Your task to perform on an android device: clear all cookies in the chrome app Image 0: 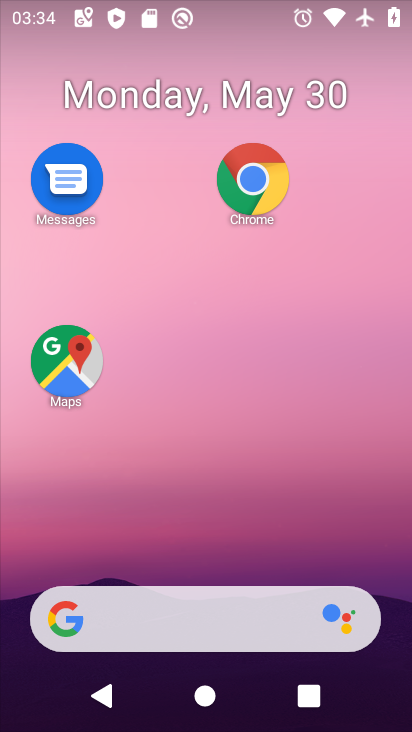
Step 0: click (240, 188)
Your task to perform on an android device: clear all cookies in the chrome app Image 1: 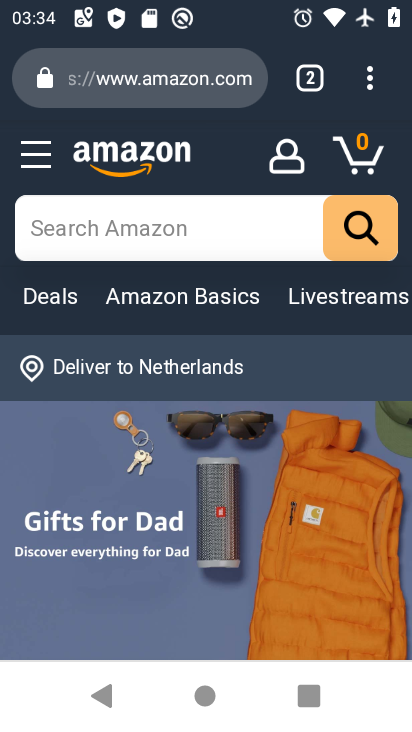
Step 1: click (367, 92)
Your task to perform on an android device: clear all cookies in the chrome app Image 2: 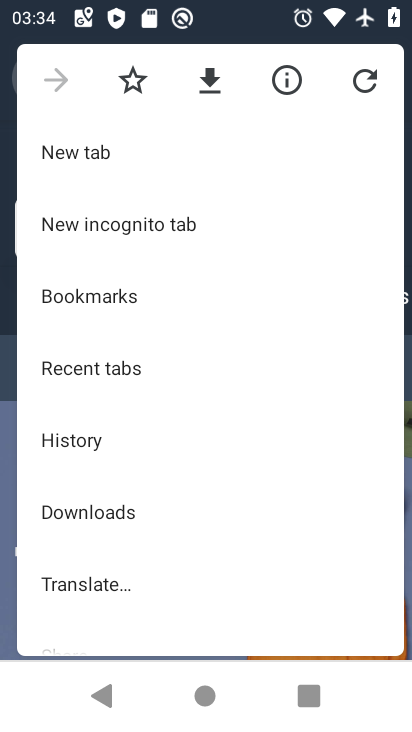
Step 2: click (78, 442)
Your task to perform on an android device: clear all cookies in the chrome app Image 3: 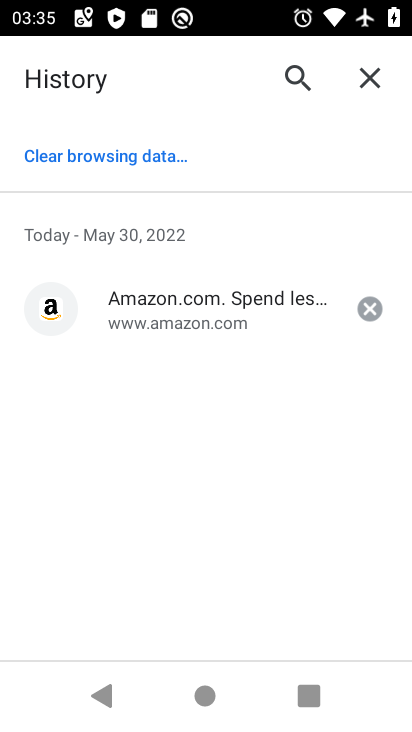
Step 3: click (118, 155)
Your task to perform on an android device: clear all cookies in the chrome app Image 4: 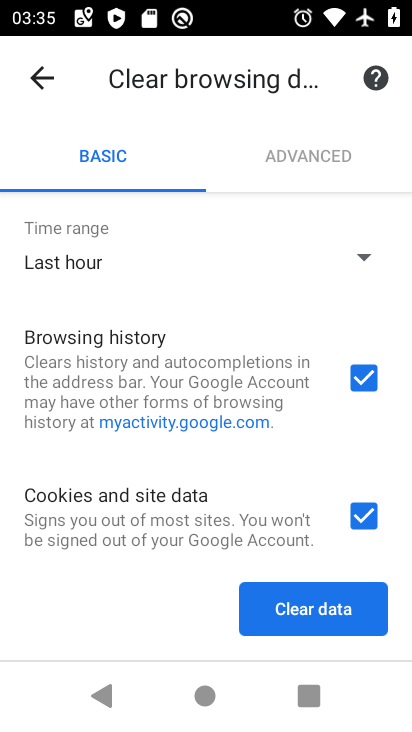
Step 4: click (370, 380)
Your task to perform on an android device: clear all cookies in the chrome app Image 5: 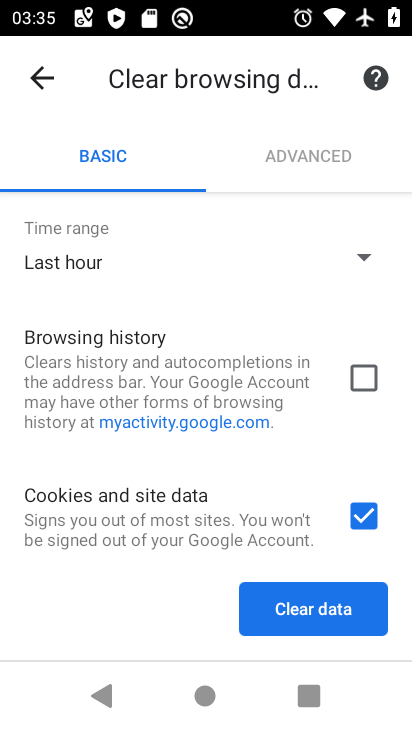
Step 5: drag from (202, 442) to (141, 134)
Your task to perform on an android device: clear all cookies in the chrome app Image 6: 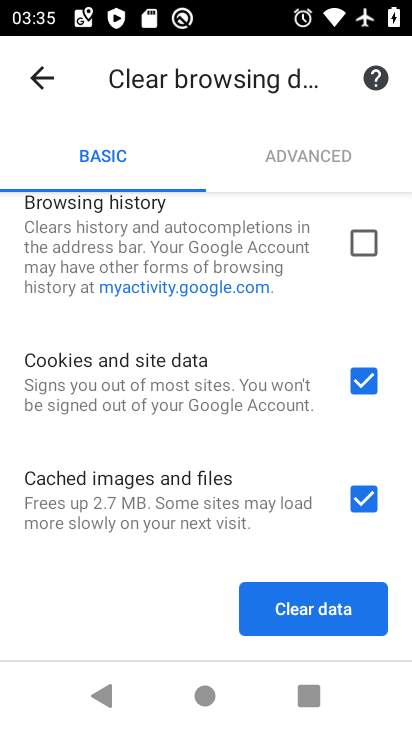
Step 6: click (371, 516)
Your task to perform on an android device: clear all cookies in the chrome app Image 7: 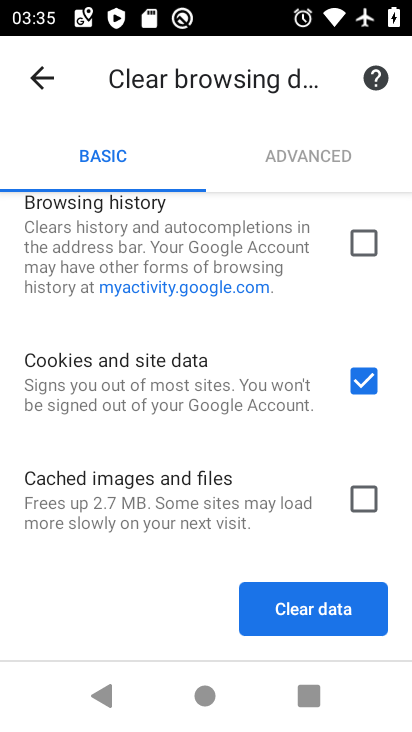
Step 7: click (299, 611)
Your task to perform on an android device: clear all cookies in the chrome app Image 8: 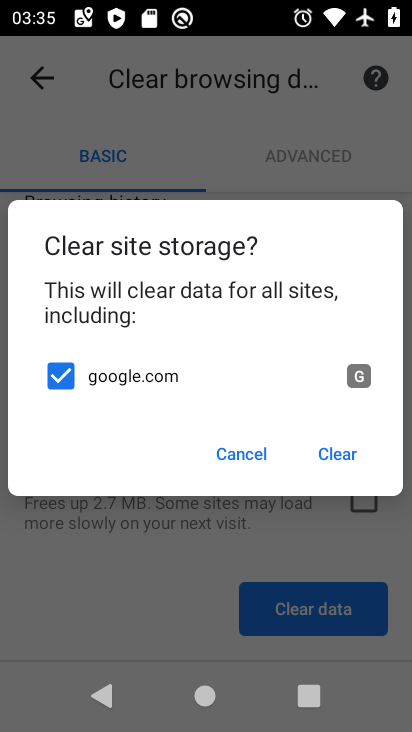
Step 8: click (328, 454)
Your task to perform on an android device: clear all cookies in the chrome app Image 9: 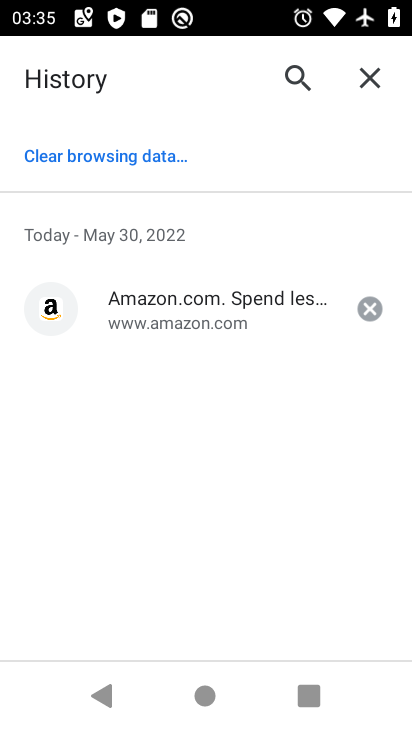
Step 9: task complete